Your task to perform on an android device: toggle sleep mode Image 0: 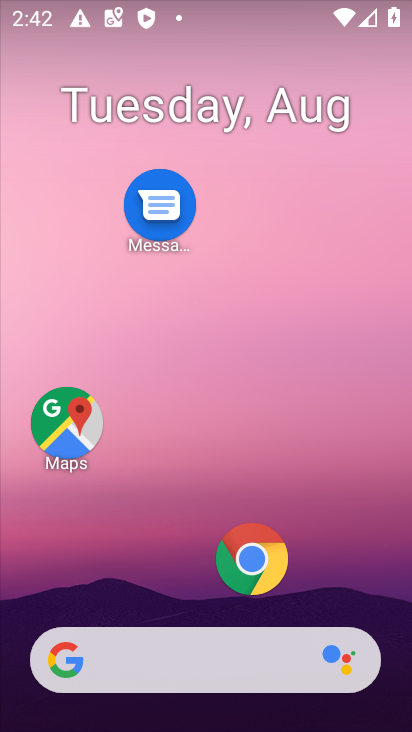
Step 0: drag from (168, 557) to (150, 250)
Your task to perform on an android device: toggle sleep mode Image 1: 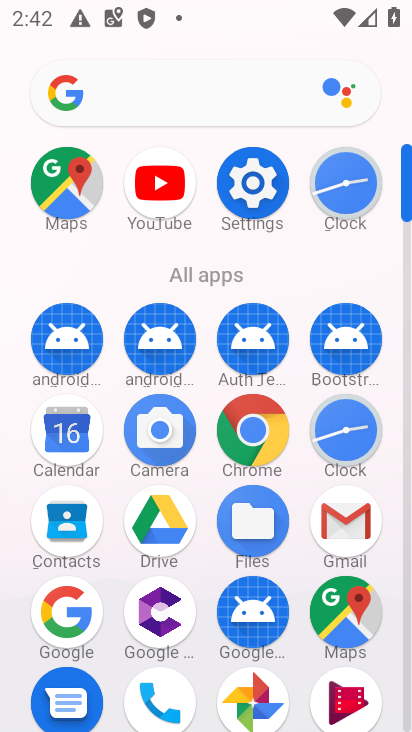
Step 1: click (253, 181)
Your task to perform on an android device: toggle sleep mode Image 2: 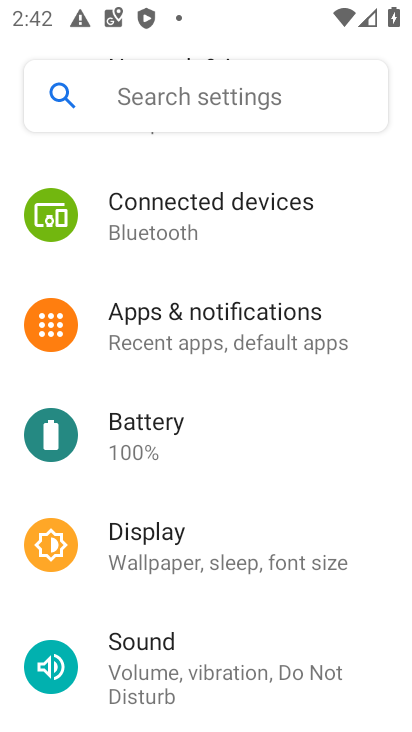
Step 2: click (157, 541)
Your task to perform on an android device: toggle sleep mode Image 3: 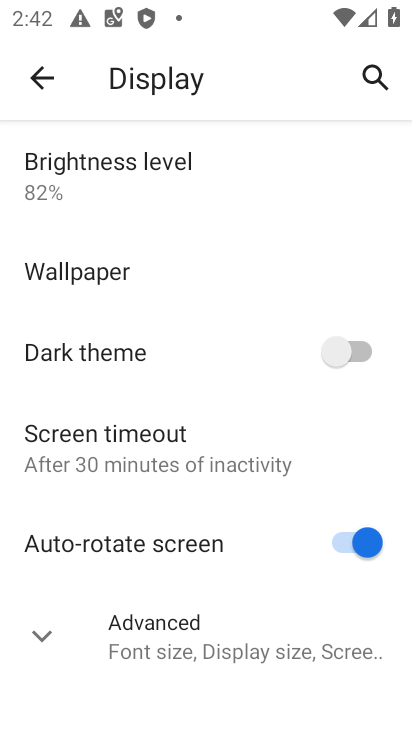
Step 3: click (35, 646)
Your task to perform on an android device: toggle sleep mode Image 4: 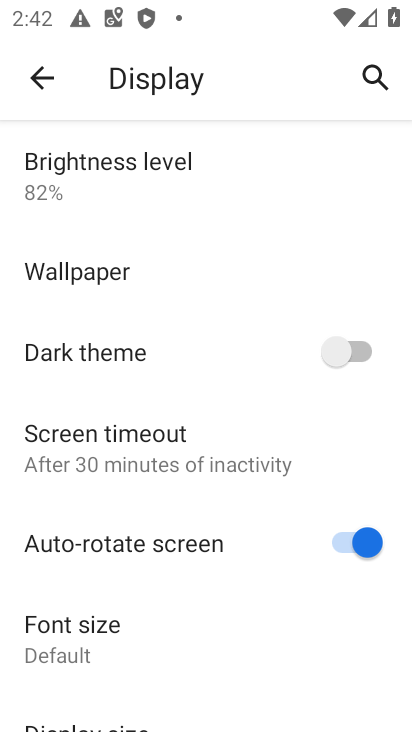
Step 4: task complete